Your task to perform on an android device: open device folders in google photos Image 0: 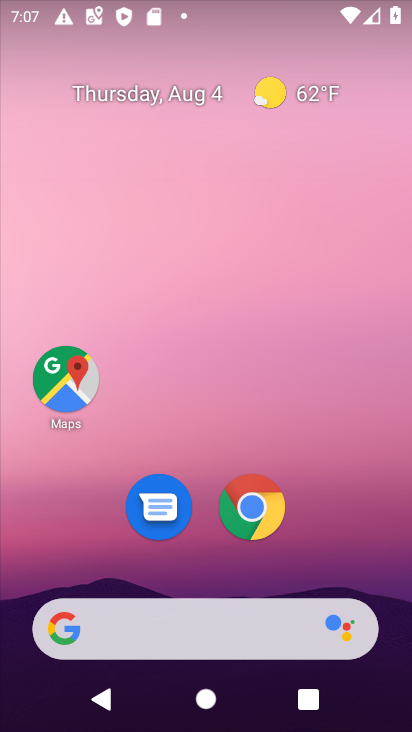
Step 0: click (251, 2)
Your task to perform on an android device: open device folders in google photos Image 1: 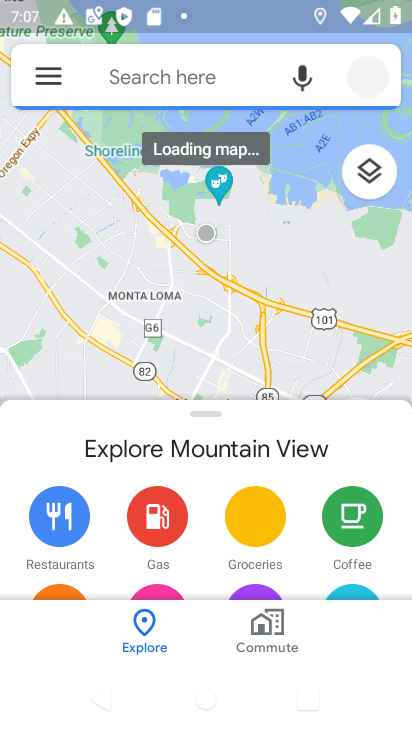
Step 1: press home button
Your task to perform on an android device: open device folders in google photos Image 2: 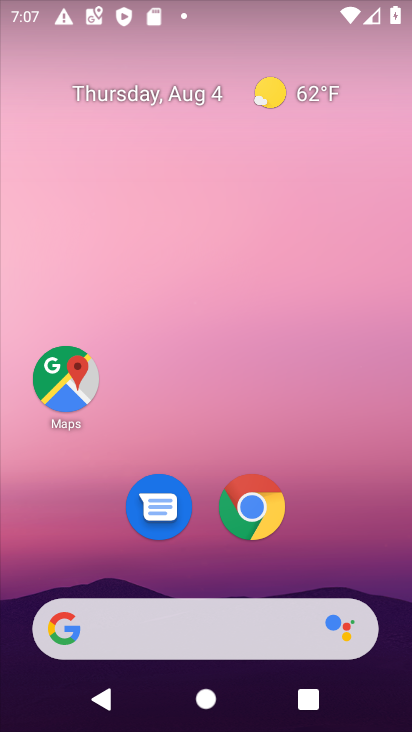
Step 2: drag from (390, 641) to (222, 77)
Your task to perform on an android device: open device folders in google photos Image 3: 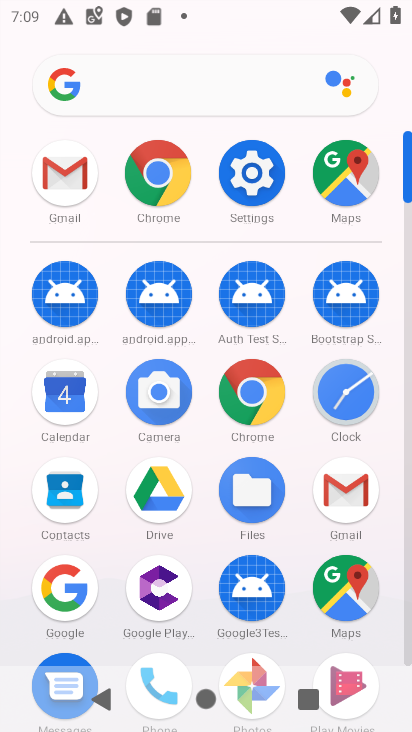
Step 3: click (260, 654)
Your task to perform on an android device: open device folders in google photos Image 4: 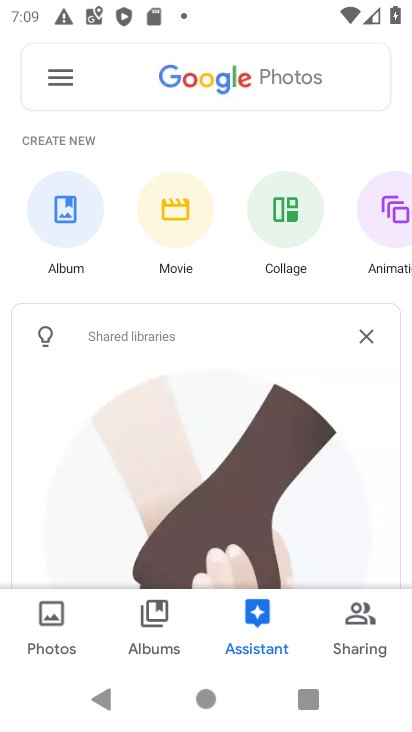
Step 4: click (60, 84)
Your task to perform on an android device: open device folders in google photos Image 5: 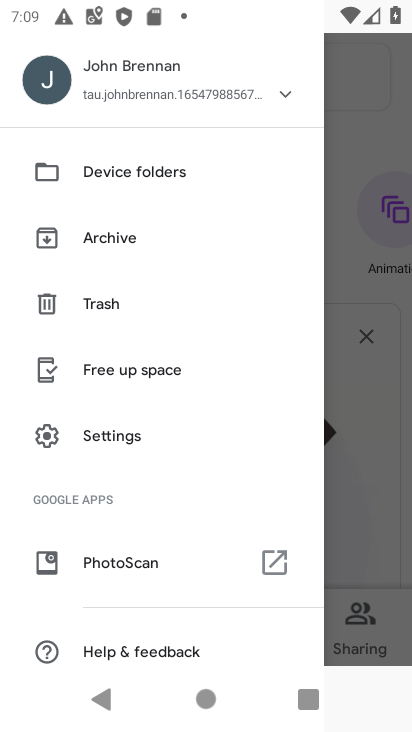
Step 5: click (110, 165)
Your task to perform on an android device: open device folders in google photos Image 6: 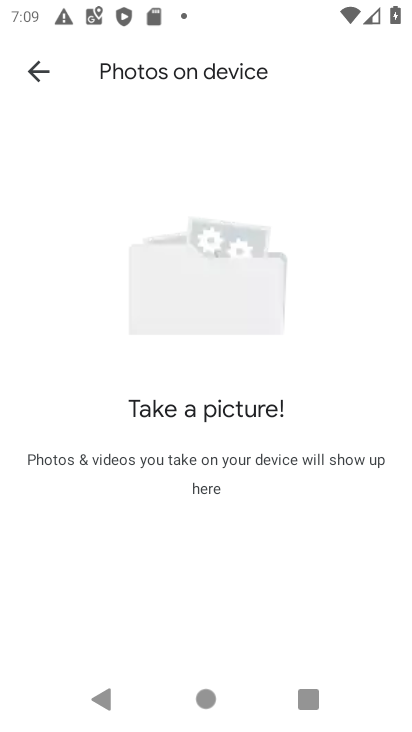
Step 6: task complete